Your task to perform on an android device: add a contact Image 0: 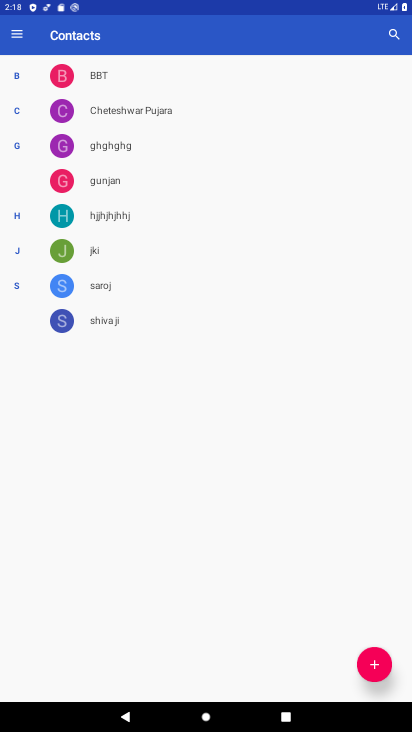
Step 0: press home button
Your task to perform on an android device: add a contact Image 1: 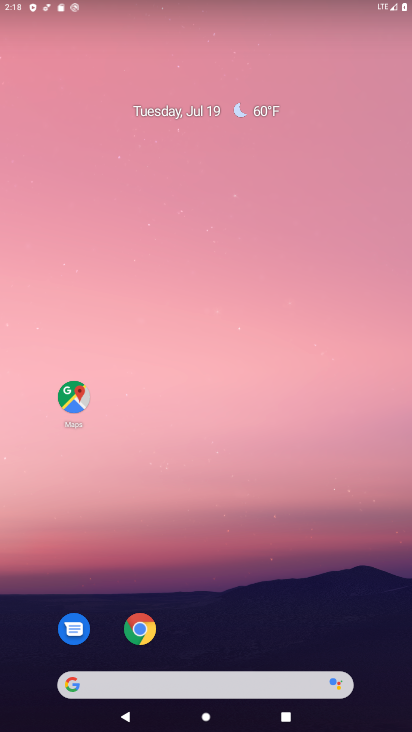
Step 1: drag from (205, 609) to (201, 83)
Your task to perform on an android device: add a contact Image 2: 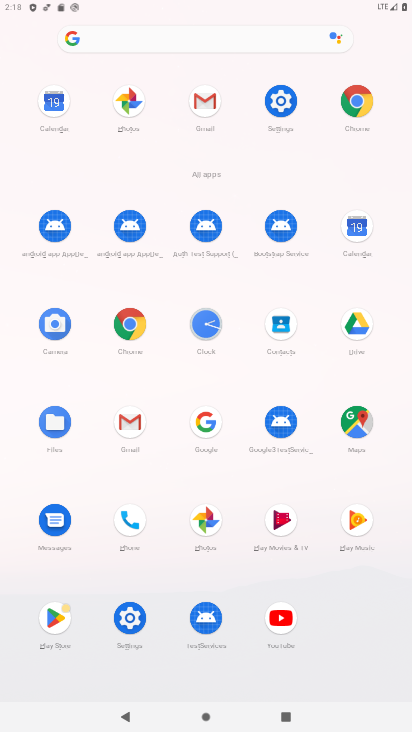
Step 2: click (262, 321)
Your task to perform on an android device: add a contact Image 3: 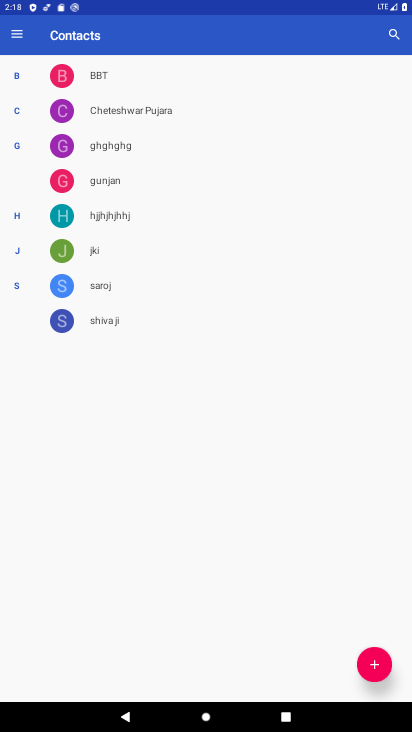
Step 3: click (366, 670)
Your task to perform on an android device: add a contact Image 4: 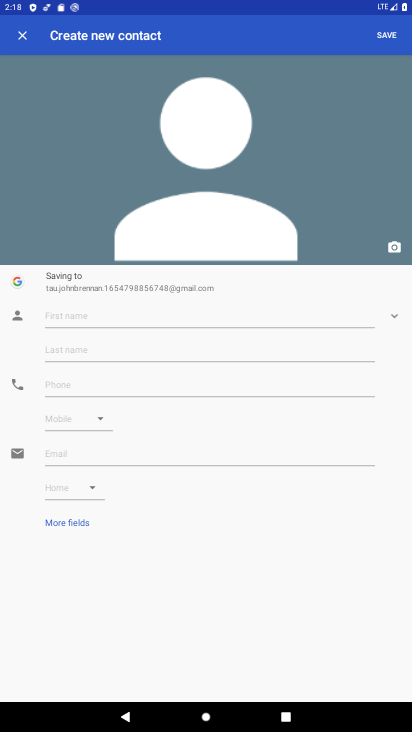
Step 4: click (218, 320)
Your task to perform on an android device: add a contact Image 5: 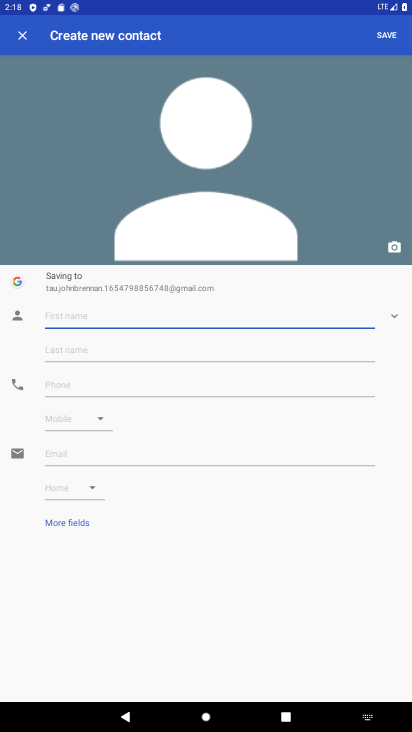
Step 5: type "rgfhg"
Your task to perform on an android device: add a contact Image 6: 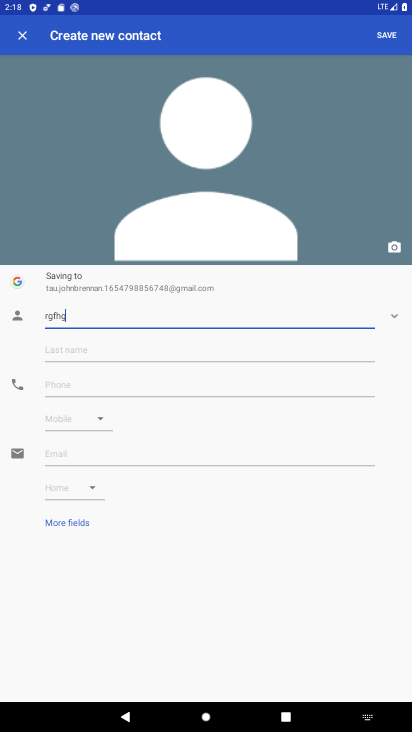
Step 6: click (132, 386)
Your task to perform on an android device: add a contact Image 7: 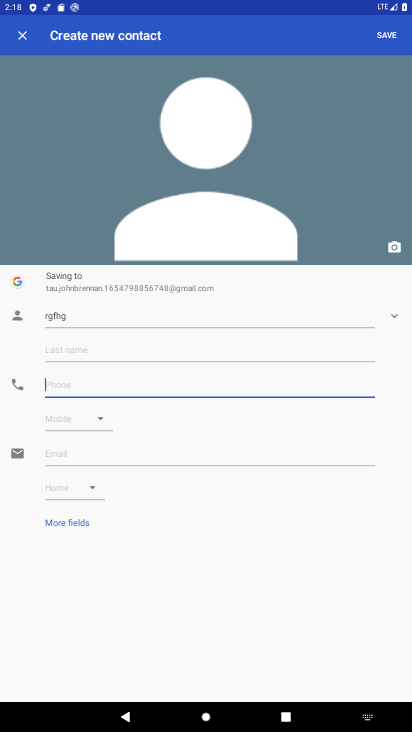
Step 7: type "87657564657"
Your task to perform on an android device: add a contact Image 8: 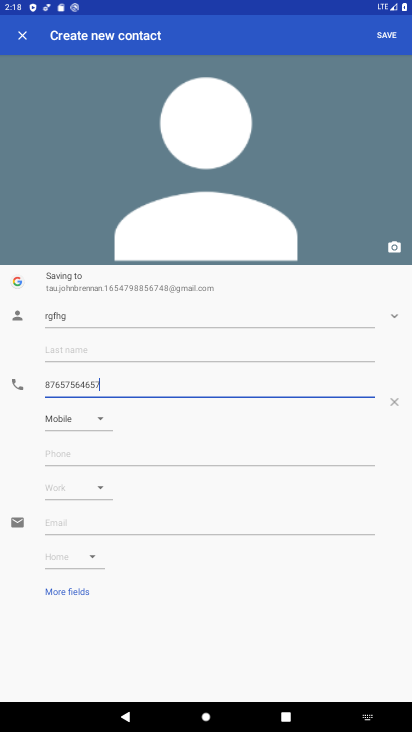
Step 8: click (385, 30)
Your task to perform on an android device: add a contact Image 9: 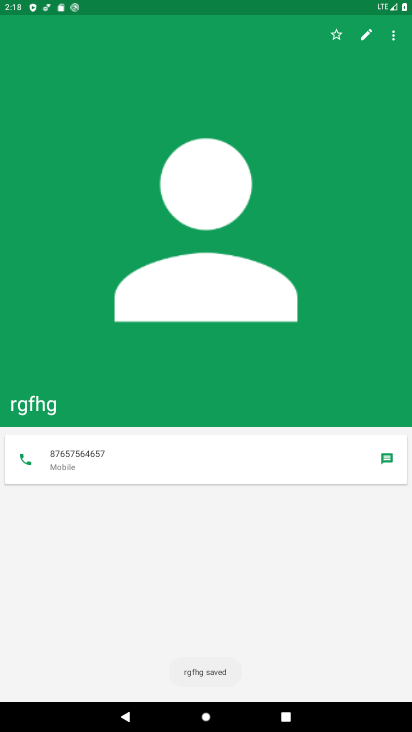
Step 9: task complete